Your task to perform on an android device: turn on airplane mode Image 0: 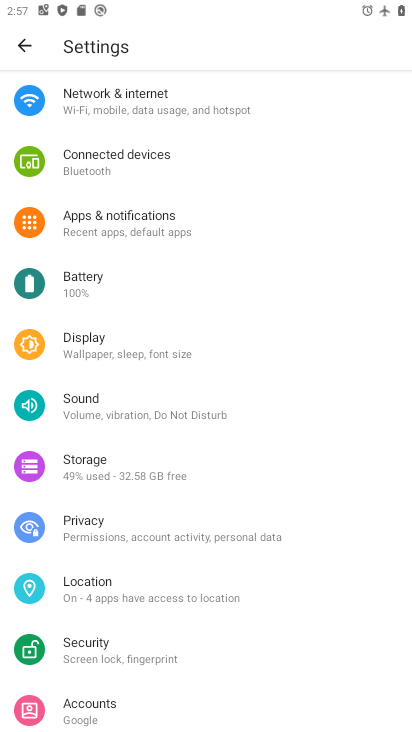
Step 0: task complete